Your task to perform on an android device: turn off notifications settings in the gmail app Image 0: 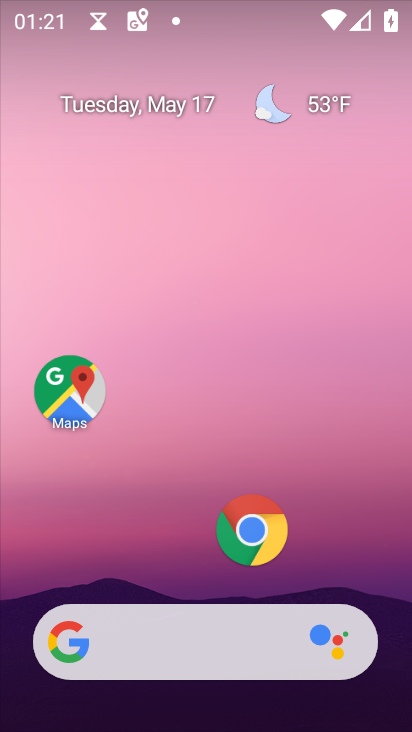
Step 0: drag from (377, 292) to (406, 146)
Your task to perform on an android device: turn off notifications settings in the gmail app Image 1: 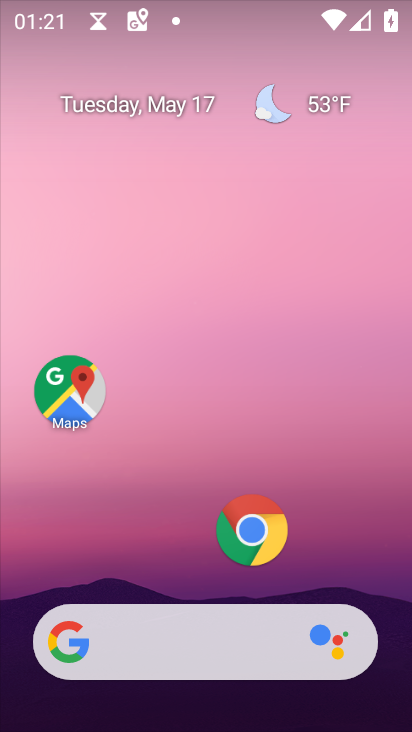
Step 1: drag from (144, 508) to (214, 190)
Your task to perform on an android device: turn off notifications settings in the gmail app Image 2: 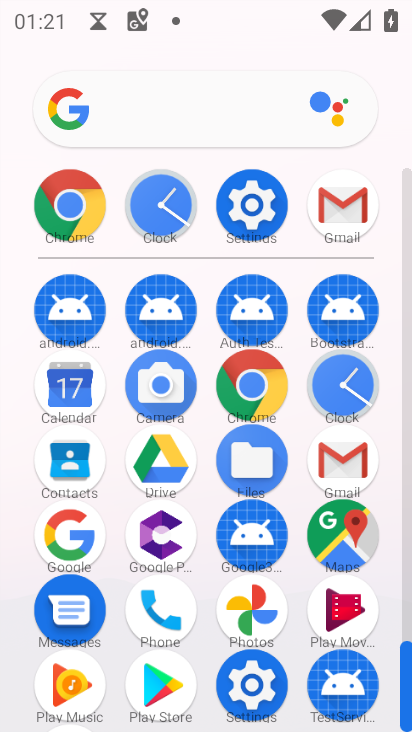
Step 2: click (339, 223)
Your task to perform on an android device: turn off notifications settings in the gmail app Image 3: 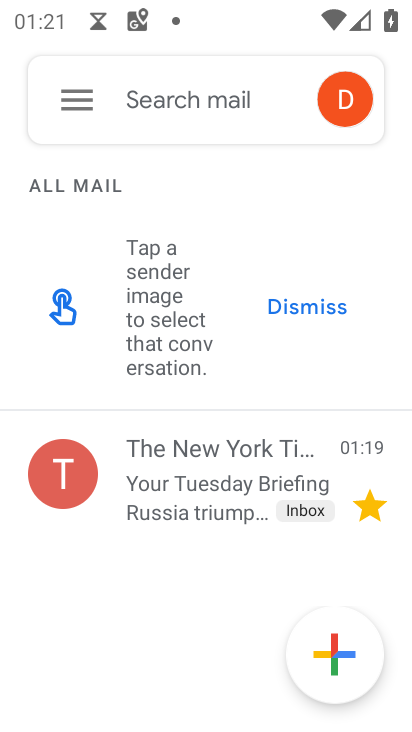
Step 3: click (72, 102)
Your task to perform on an android device: turn off notifications settings in the gmail app Image 4: 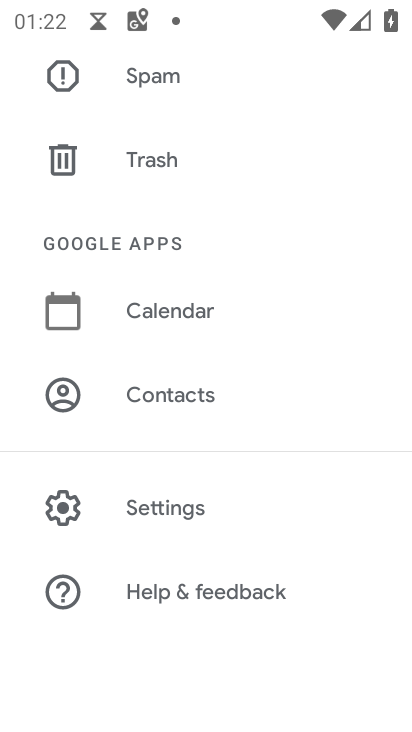
Step 4: drag from (307, 161) to (171, 695)
Your task to perform on an android device: turn off notifications settings in the gmail app Image 5: 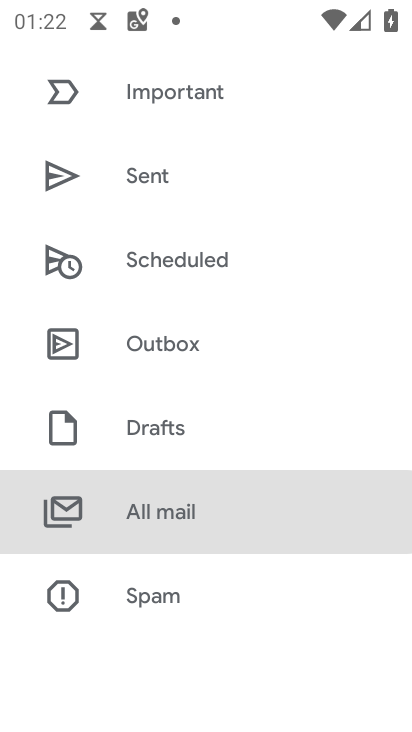
Step 5: drag from (239, 210) to (162, 669)
Your task to perform on an android device: turn off notifications settings in the gmail app Image 6: 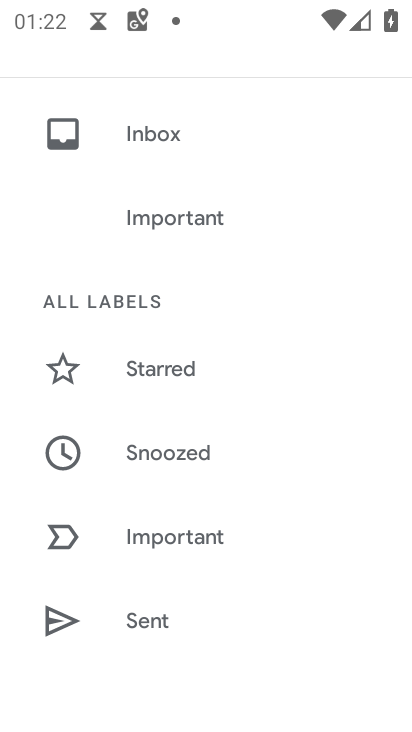
Step 6: drag from (322, 135) to (278, 326)
Your task to perform on an android device: turn off notifications settings in the gmail app Image 7: 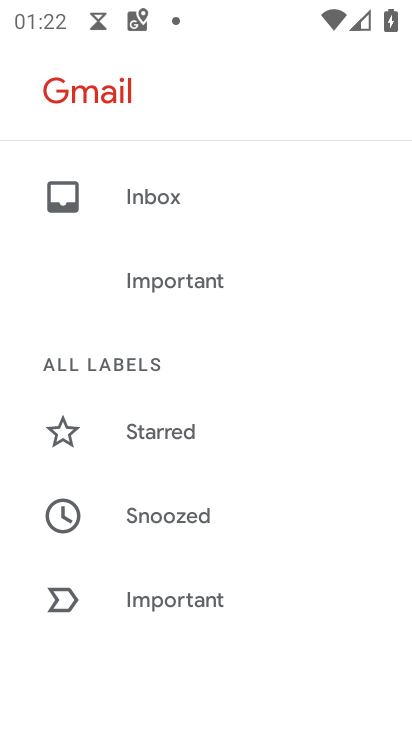
Step 7: drag from (270, 595) to (346, 160)
Your task to perform on an android device: turn off notifications settings in the gmail app Image 8: 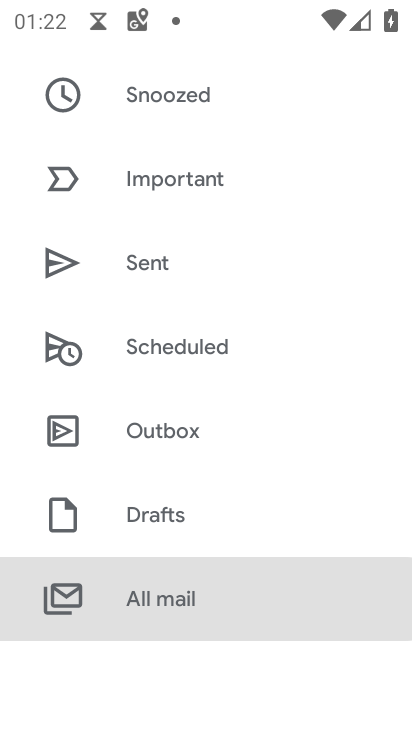
Step 8: drag from (217, 667) to (340, 266)
Your task to perform on an android device: turn off notifications settings in the gmail app Image 9: 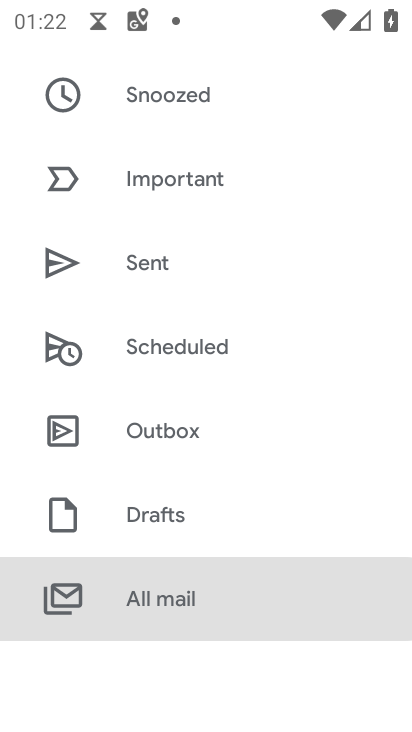
Step 9: drag from (312, 221) to (250, 723)
Your task to perform on an android device: turn off notifications settings in the gmail app Image 10: 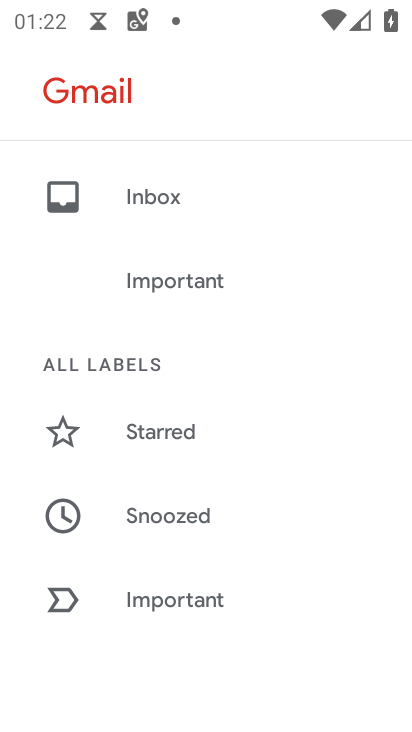
Step 10: drag from (292, 516) to (371, 140)
Your task to perform on an android device: turn off notifications settings in the gmail app Image 11: 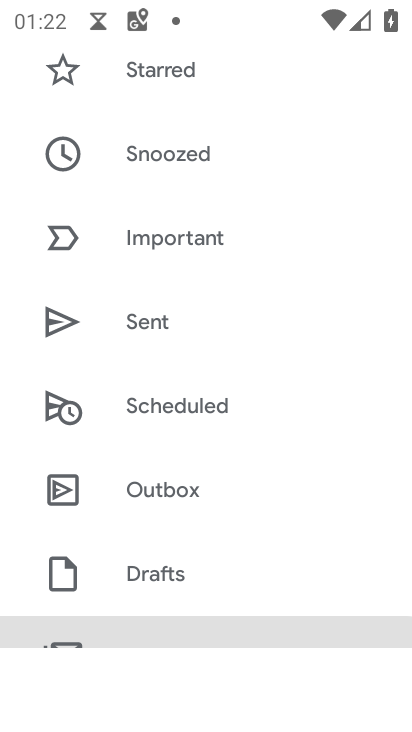
Step 11: drag from (252, 540) to (361, 165)
Your task to perform on an android device: turn off notifications settings in the gmail app Image 12: 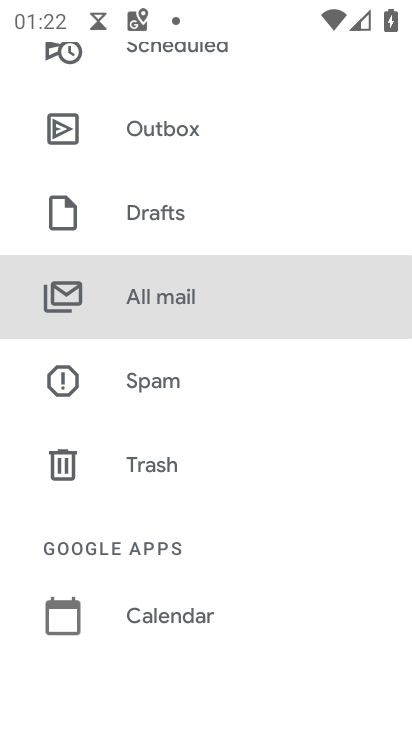
Step 12: drag from (238, 544) to (372, 103)
Your task to perform on an android device: turn off notifications settings in the gmail app Image 13: 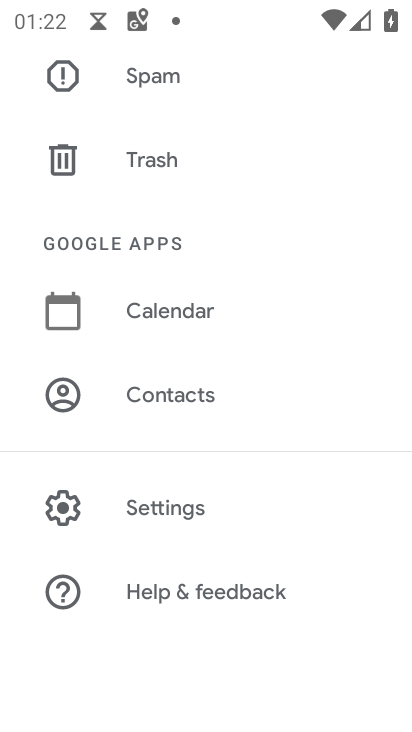
Step 13: click (190, 508)
Your task to perform on an android device: turn off notifications settings in the gmail app Image 14: 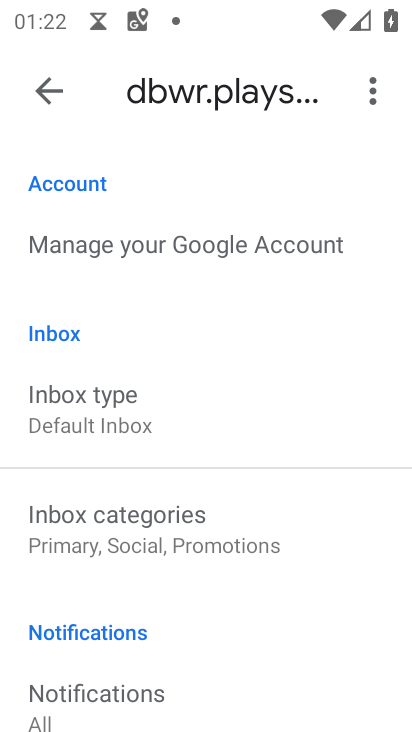
Step 14: drag from (172, 673) to (191, 426)
Your task to perform on an android device: turn off notifications settings in the gmail app Image 15: 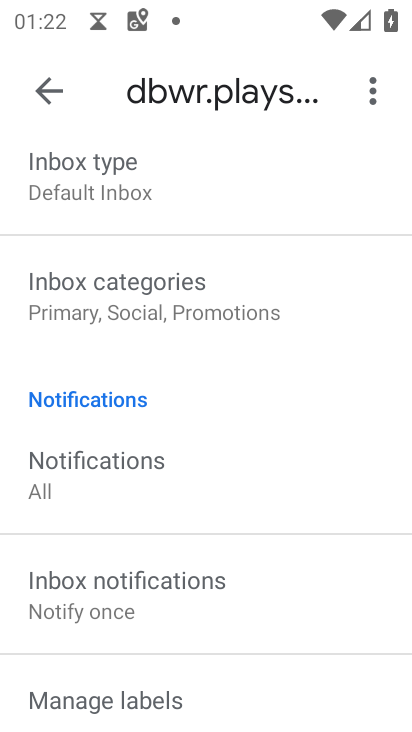
Step 15: click (70, 486)
Your task to perform on an android device: turn off notifications settings in the gmail app Image 16: 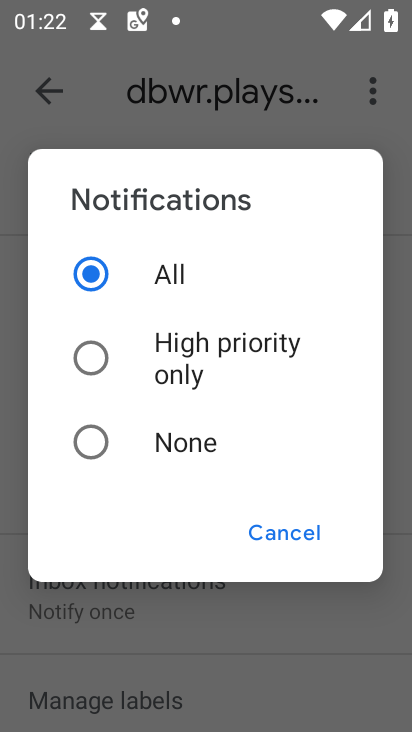
Step 16: click (82, 448)
Your task to perform on an android device: turn off notifications settings in the gmail app Image 17: 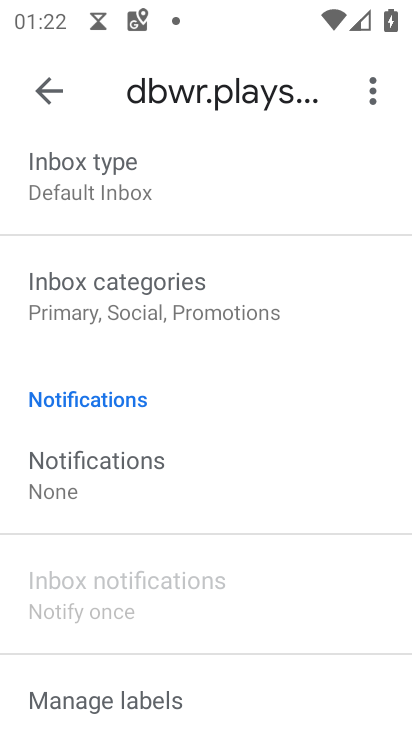
Step 17: task complete